Your task to perform on an android device: turn off priority inbox in the gmail app Image 0: 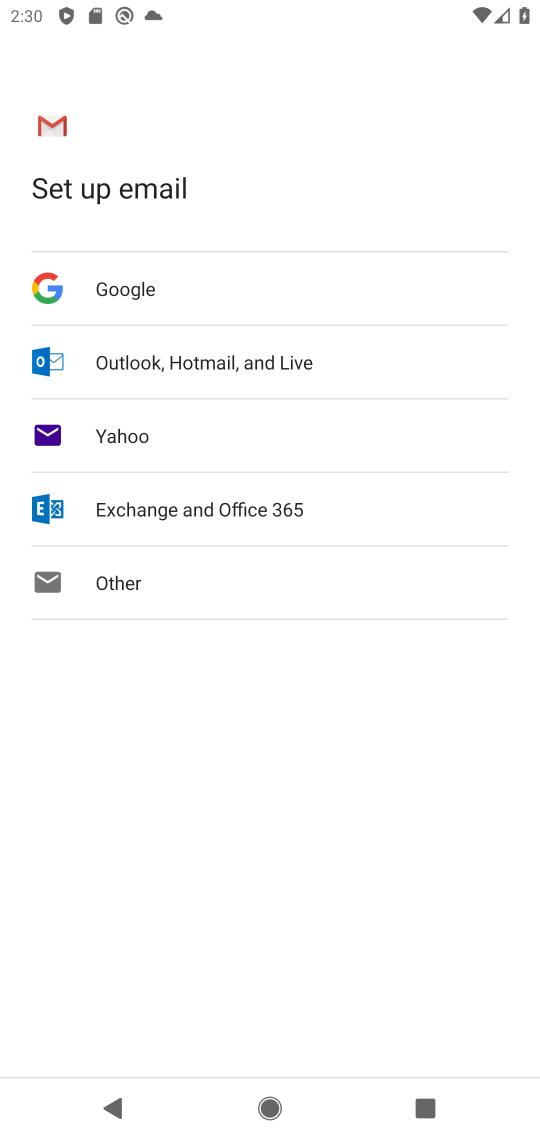
Step 0: press home button
Your task to perform on an android device: turn off priority inbox in the gmail app Image 1: 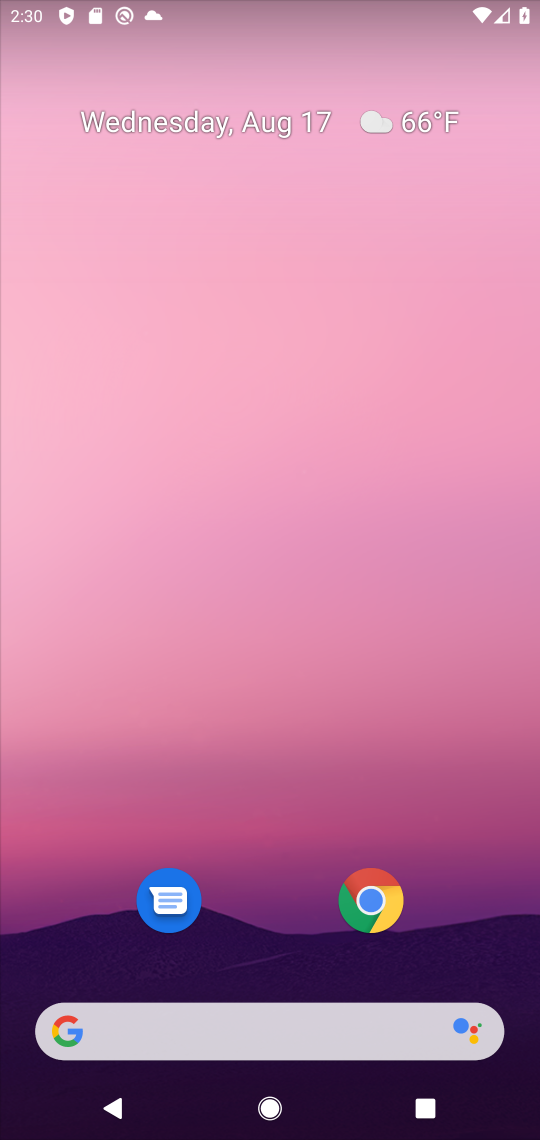
Step 1: drag from (230, 1023) to (508, 85)
Your task to perform on an android device: turn off priority inbox in the gmail app Image 2: 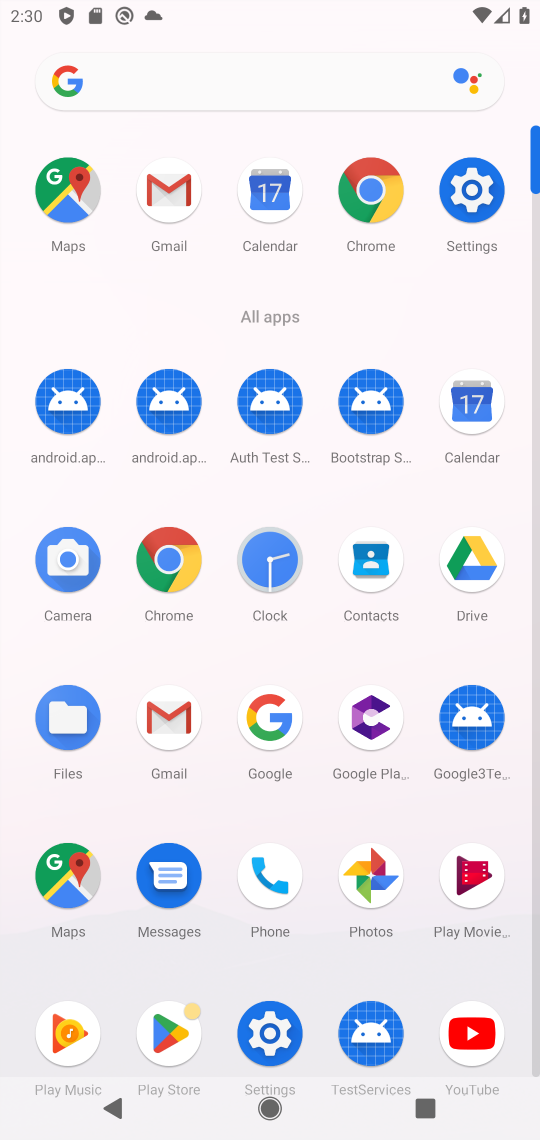
Step 2: click (164, 199)
Your task to perform on an android device: turn off priority inbox in the gmail app Image 3: 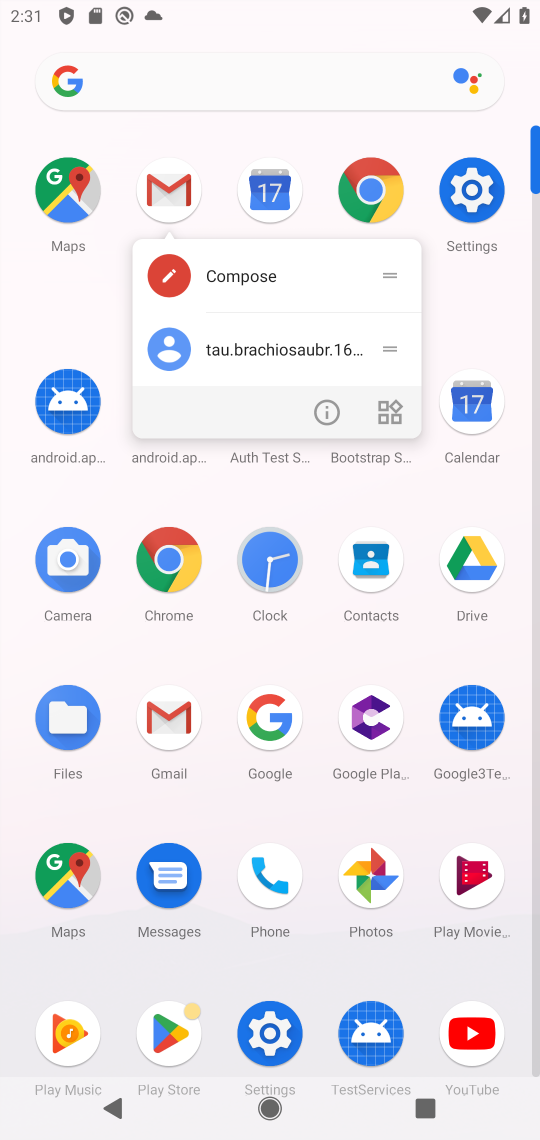
Step 3: click (164, 202)
Your task to perform on an android device: turn off priority inbox in the gmail app Image 4: 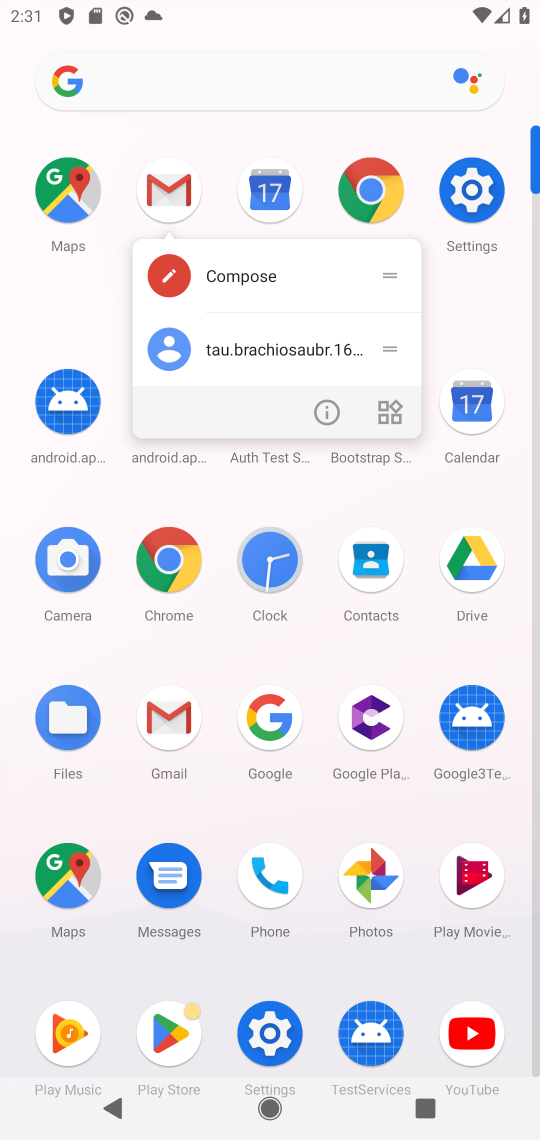
Step 4: click (161, 190)
Your task to perform on an android device: turn off priority inbox in the gmail app Image 5: 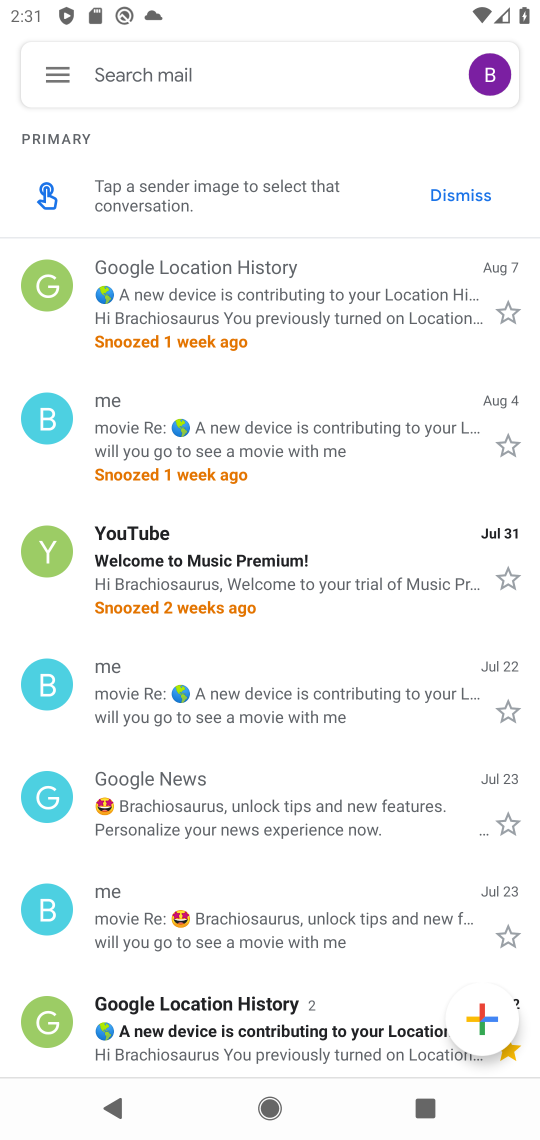
Step 5: click (54, 76)
Your task to perform on an android device: turn off priority inbox in the gmail app Image 6: 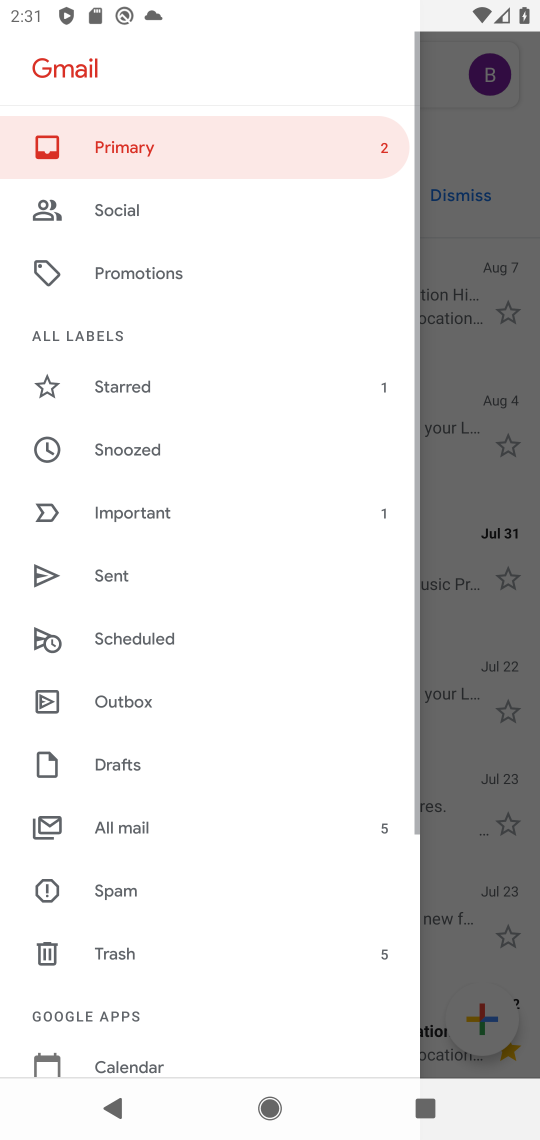
Step 6: drag from (229, 934) to (253, 143)
Your task to perform on an android device: turn off priority inbox in the gmail app Image 7: 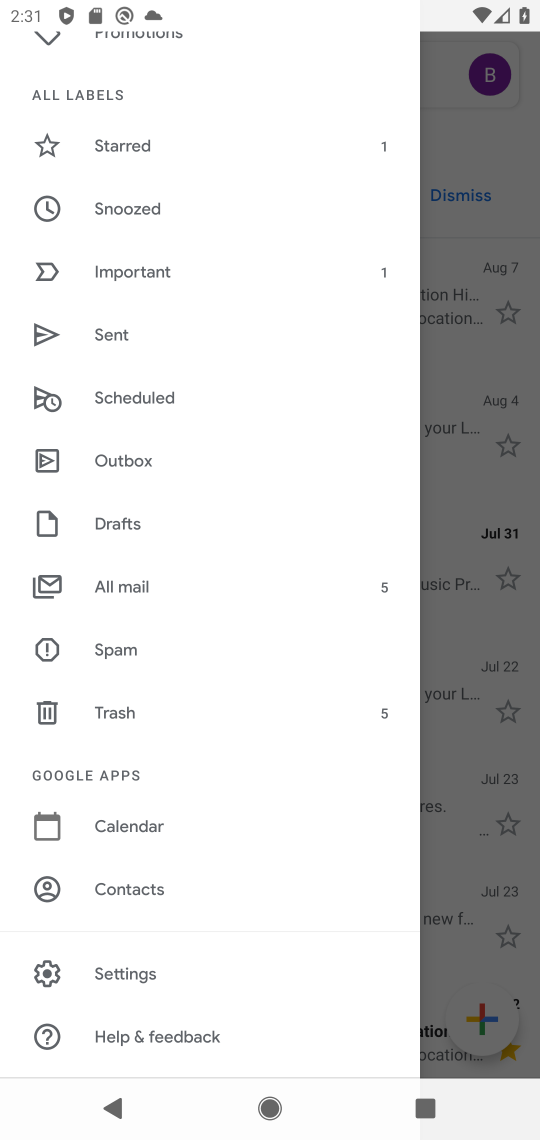
Step 7: click (135, 959)
Your task to perform on an android device: turn off priority inbox in the gmail app Image 8: 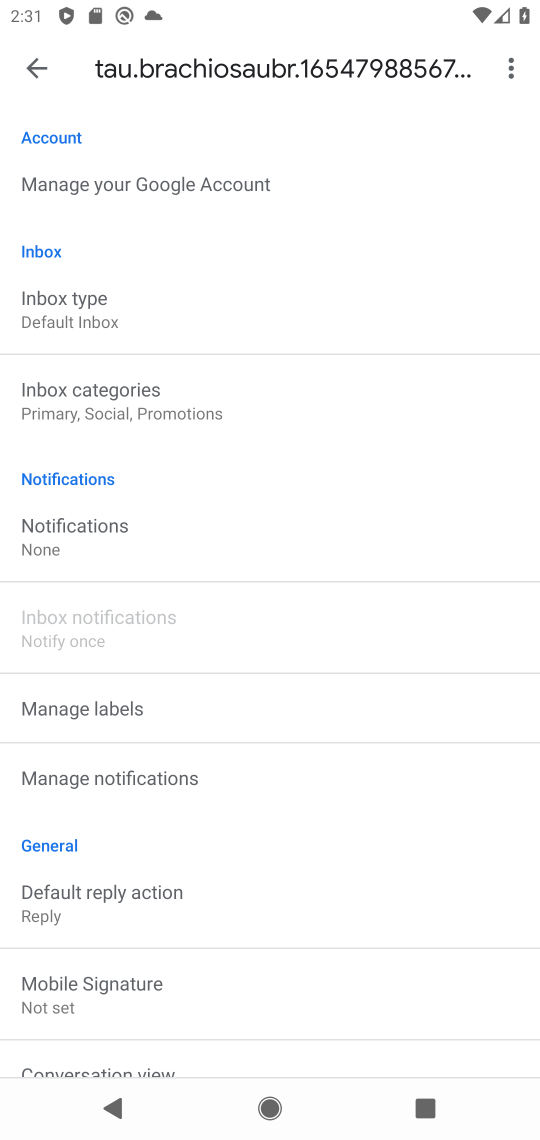
Step 8: drag from (205, 1024) to (244, 209)
Your task to perform on an android device: turn off priority inbox in the gmail app Image 9: 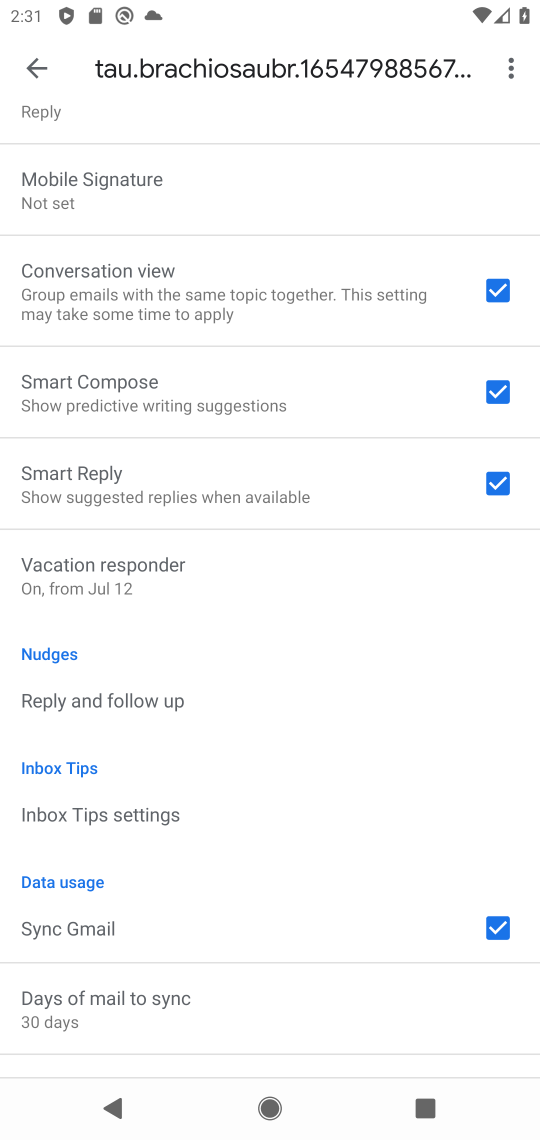
Step 9: drag from (267, 175) to (321, 941)
Your task to perform on an android device: turn off priority inbox in the gmail app Image 10: 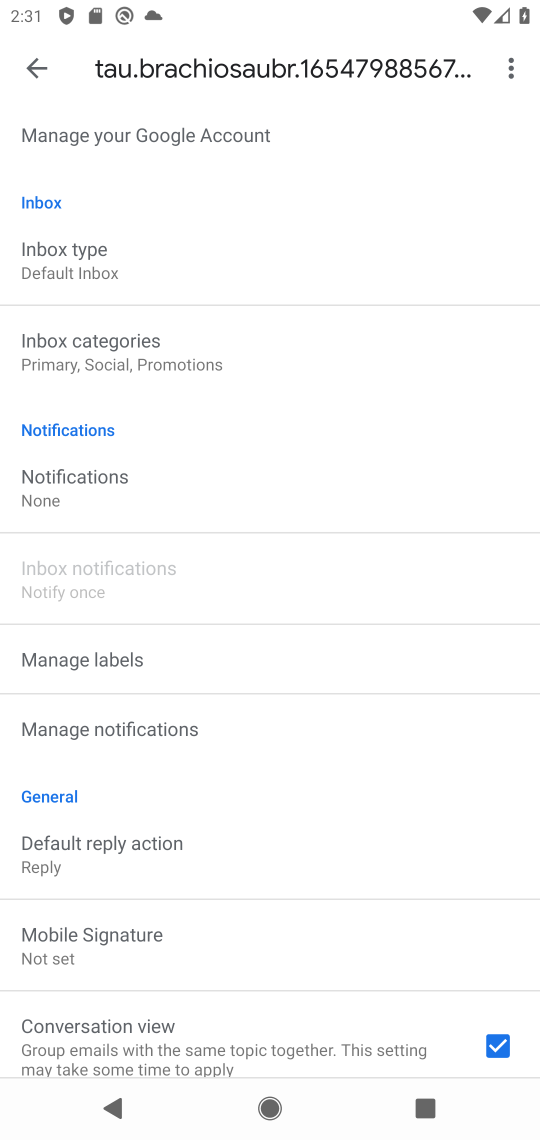
Step 10: click (81, 265)
Your task to perform on an android device: turn off priority inbox in the gmail app Image 11: 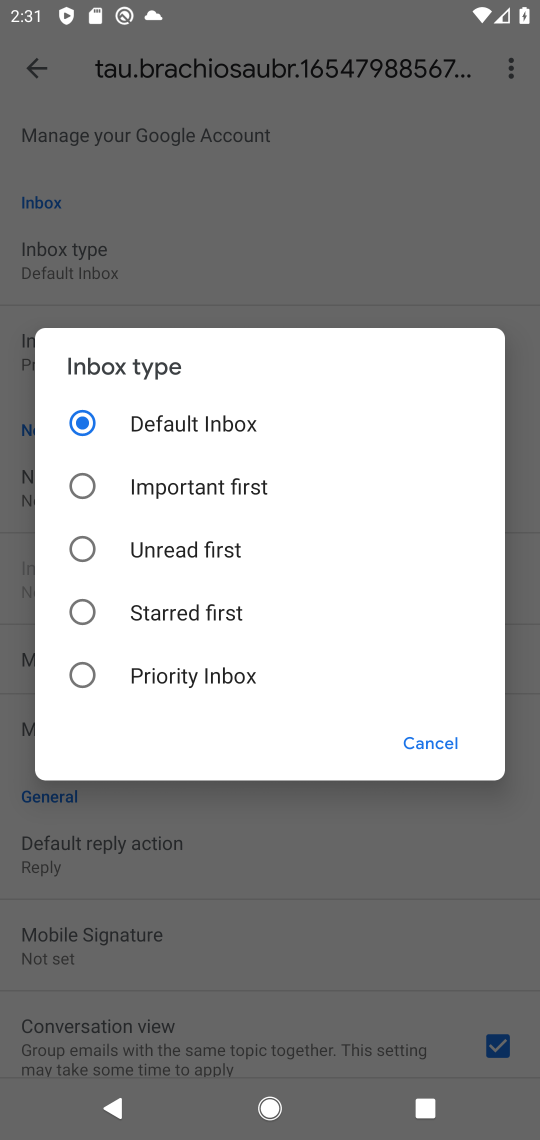
Step 11: task complete